Your task to perform on an android device: turn off airplane mode Image 0: 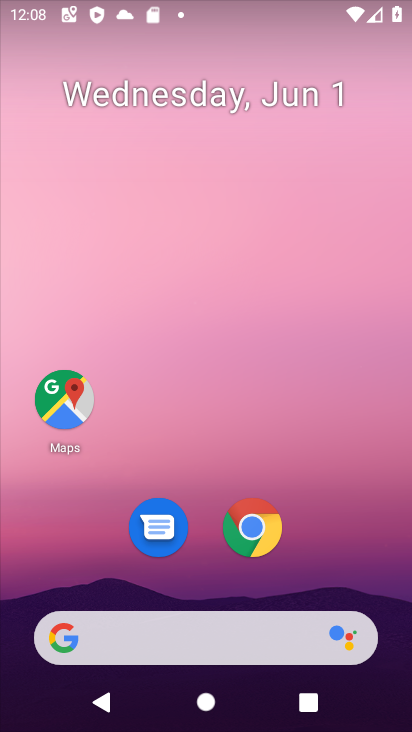
Step 0: drag from (264, 708) to (258, 18)
Your task to perform on an android device: turn off airplane mode Image 1: 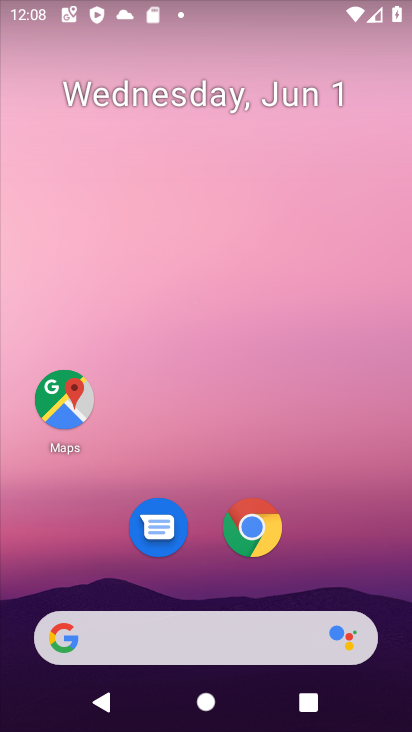
Step 1: drag from (267, 706) to (209, 43)
Your task to perform on an android device: turn off airplane mode Image 2: 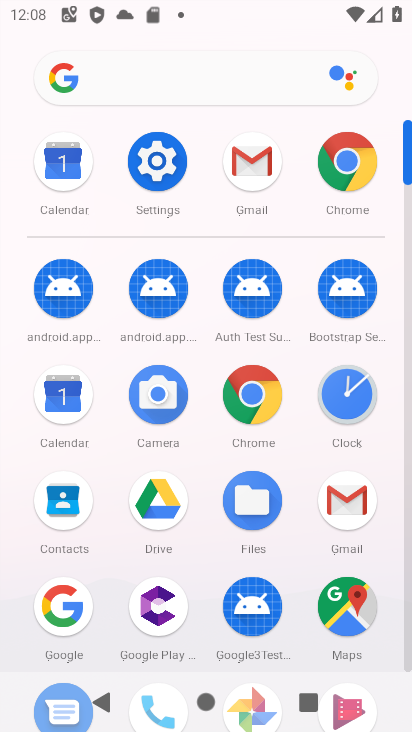
Step 2: click (156, 172)
Your task to perform on an android device: turn off airplane mode Image 3: 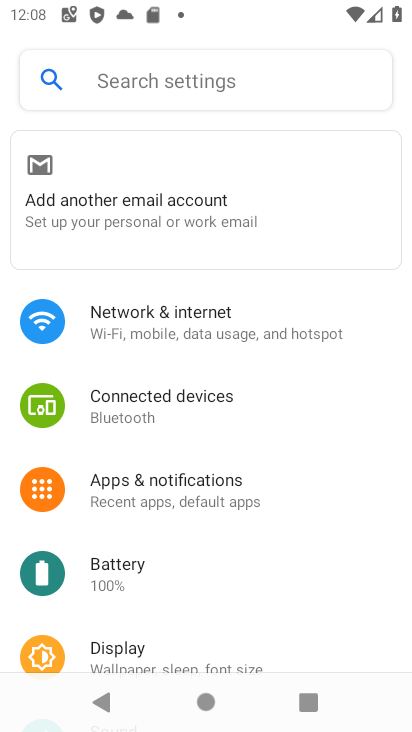
Step 3: click (196, 336)
Your task to perform on an android device: turn off airplane mode Image 4: 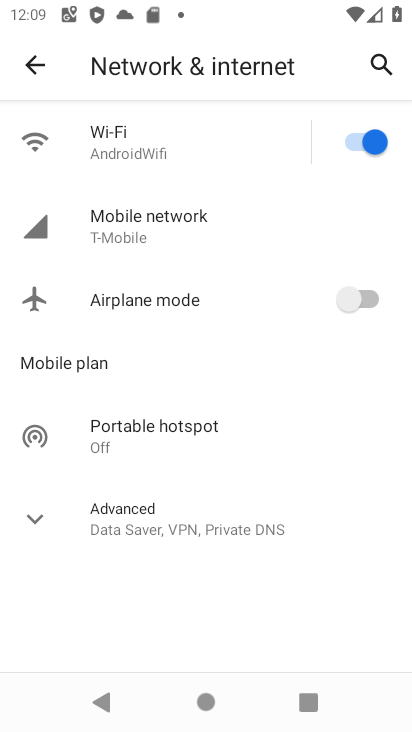
Step 4: task complete